Your task to perform on an android device: allow notifications from all sites in the chrome app Image 0: 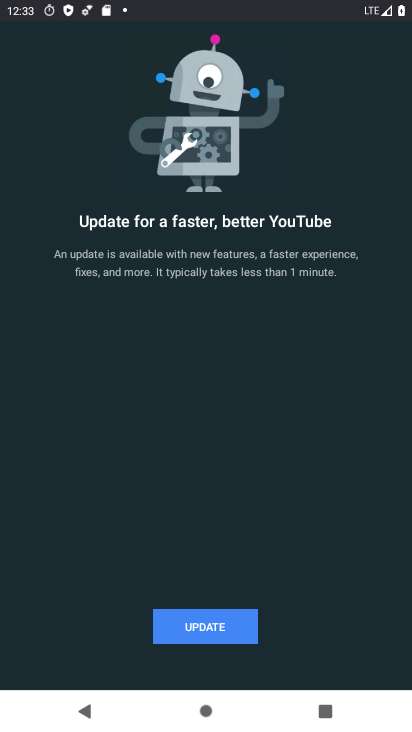
Step 0: press home button
Your task to perform on an android device: allow notifications from all sites in the chrome app Image 1: 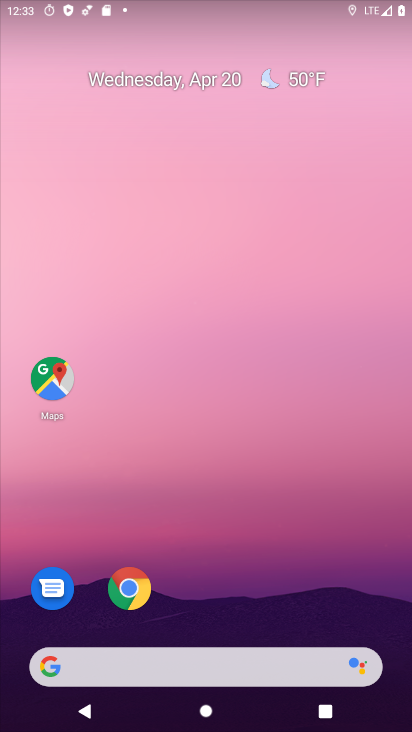
Step 1: drag from (188, 627) to (73, 11)
Your task to perform on an android device: allow notifications from all sites in the chrome app Image 2: 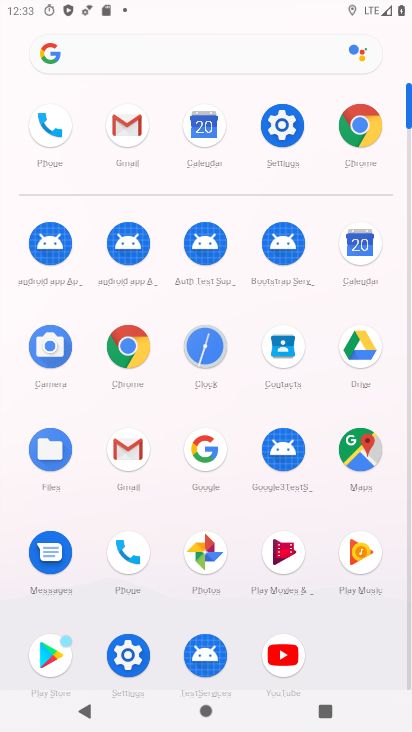
Step 2: click (353, 127)
Your task to perform on an android device: allow notifications from all sites in the chrome app Image 3: 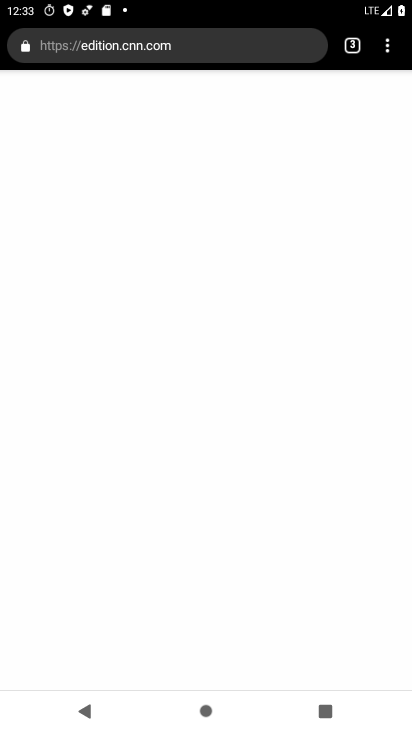
Step 3: drag from (382, 48) to (215, 510)
Your task to perform on an android device: allow notifications from all sites in the chrome app Image 4: 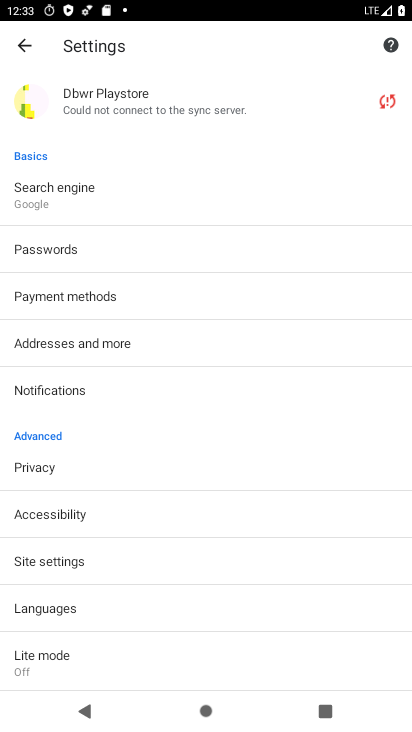
Step 4: click (69, 400)
Your task to perform on an android device: allow notifications from all sites in the chrome app Image 5: 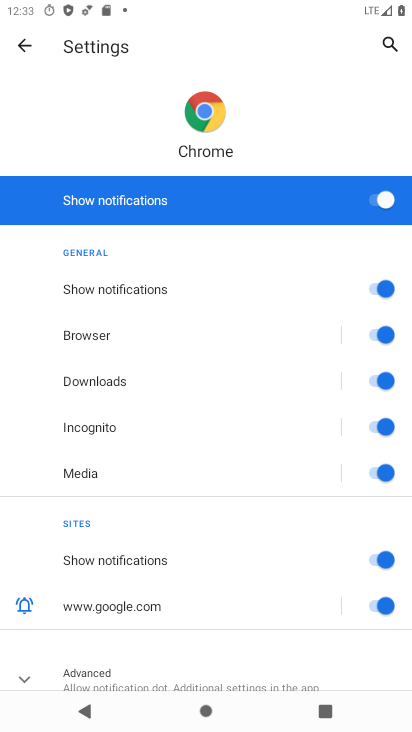
Step 5: click (25, 47)
Your task to perform on an android device: allow notifications from all sites in the chrome app Image 6: 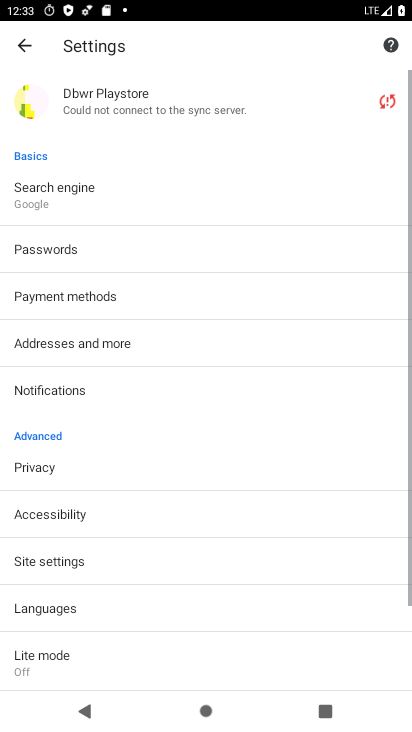
Step 6: click (77, 567)
Your task to perform on an android device: allow notifications from all sites in the chrome app Image 7: 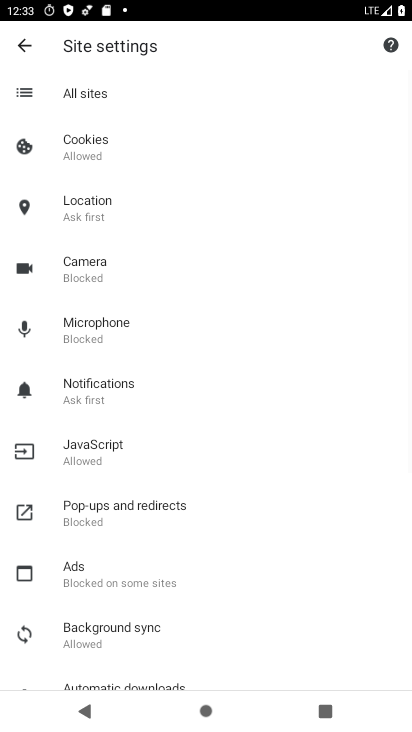
Step 7: click (106, 395)
Your task to perform on an android device: allow notifications from all sites in the chrome app Image 8: 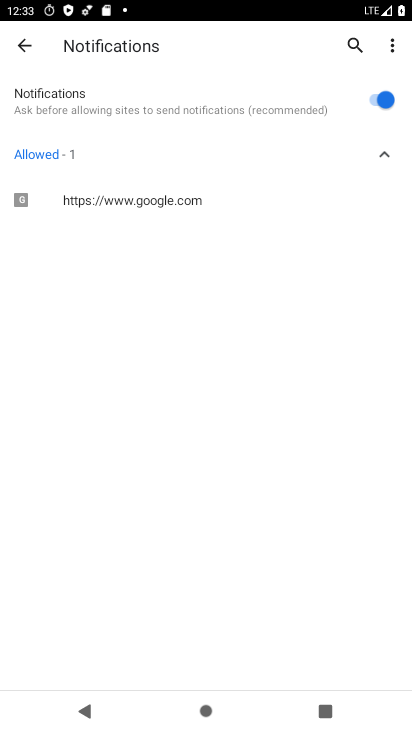
Step 8: task complete